Your task to perform on an android device: move an email to a new category in the gmail app Image 0: 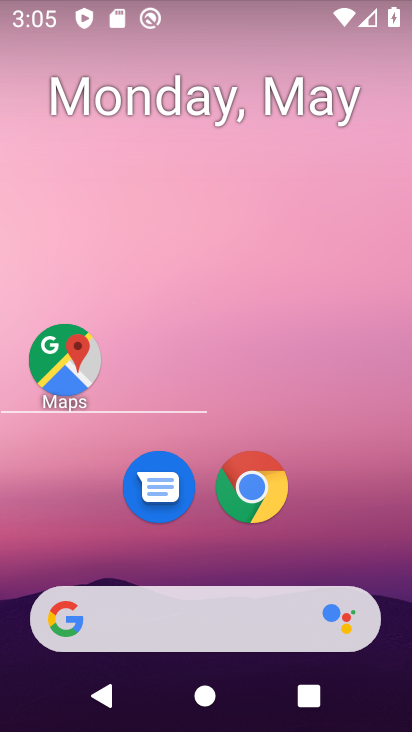
Step 0: drag from (226, 480) to (275, 113)
Your task to perform on an android device: move an email to a new category in the gmail app Image 1: 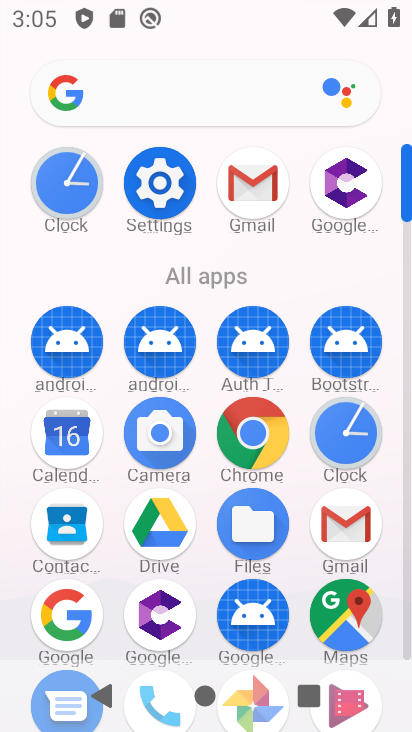
Step 1: click (353, 511)
Your task to perform on an android device: move an email to a new category in the gmail app Image 2: 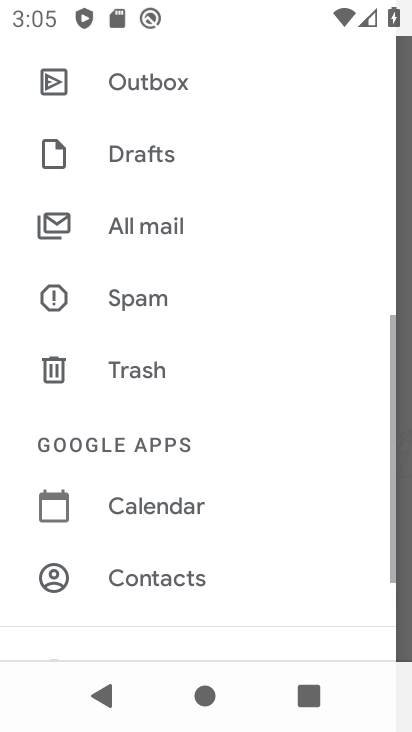
Step 2: drag from (202, 184) to (195, 611)
Your task to perform on an android device: move an email to a new category in the gmail app Image 3: 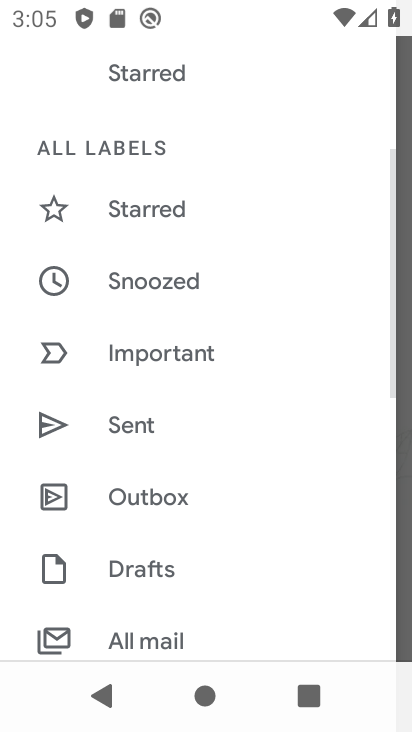
Step 3: drag from (162, 552) to (311, 60)
Your task to perform on an android device: move an email to a new category in the gmail app Image 4: 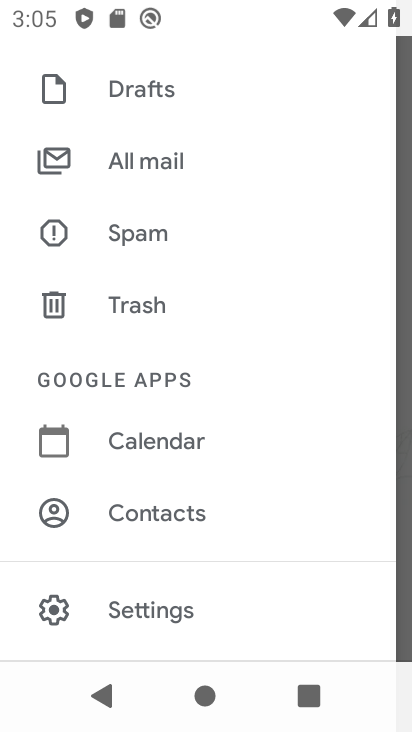
Step 4: drag from (172, 575) to (172, 223)
Your task to perform on an android device: move an email to a new category in the gmail app Image 5: 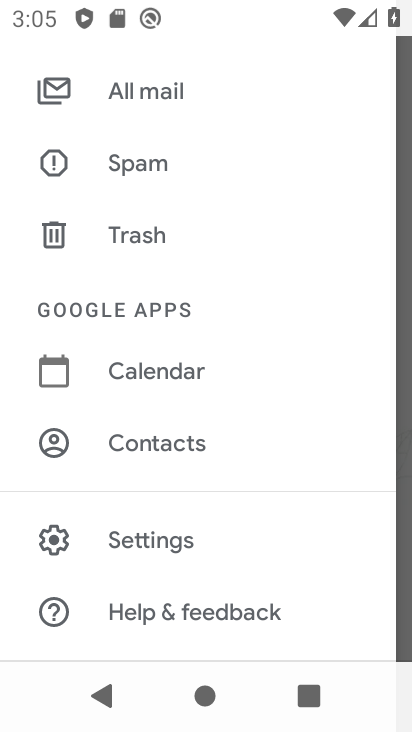
Step 5: drag from (245, 183) to (260, 639)
Your task to perform on an android device: move an email to a new category in the gmail app Image 6: 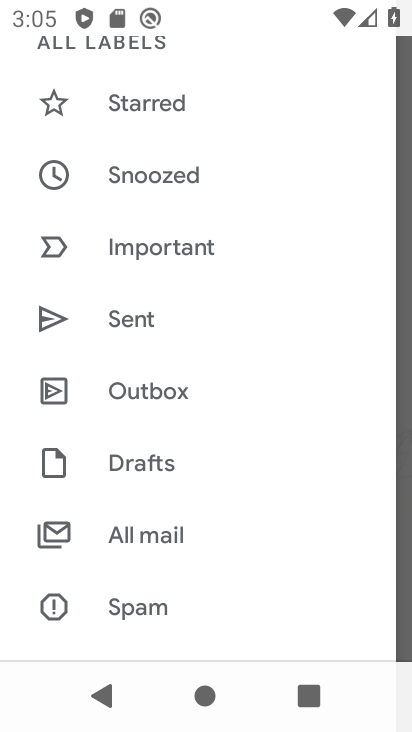
Step 6: drag from (252, 161) to (243, 727)
Your task to perform on an android device: move an email to a new category in the gmail app Image 7: 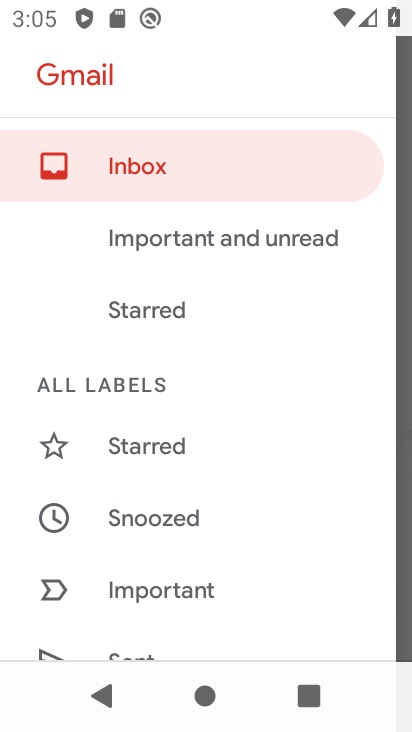
Step 7: click (159, 160)
Your task to perform on an android device: move an email to a new category in the gmail app Image 8: 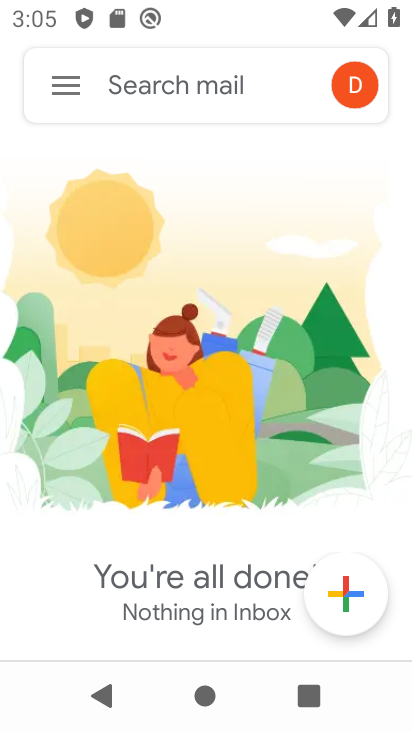
Step 8: task complete